Your task to perform on an android device: Open the map Image 0: 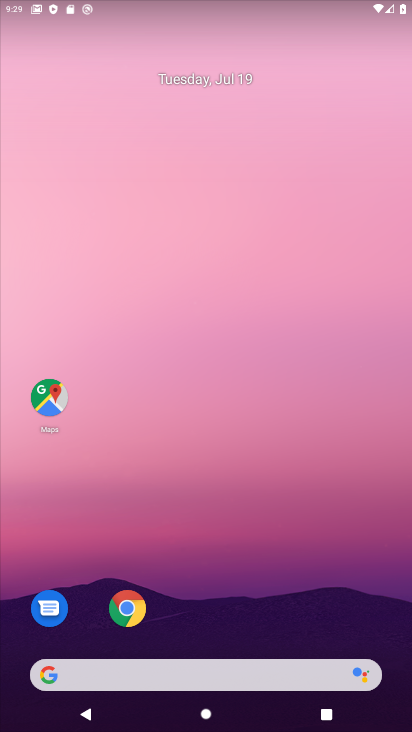
Step 0: drag from (299, 612) to (281, 126)
Your task to perform on an android device: Open the map Image 1: 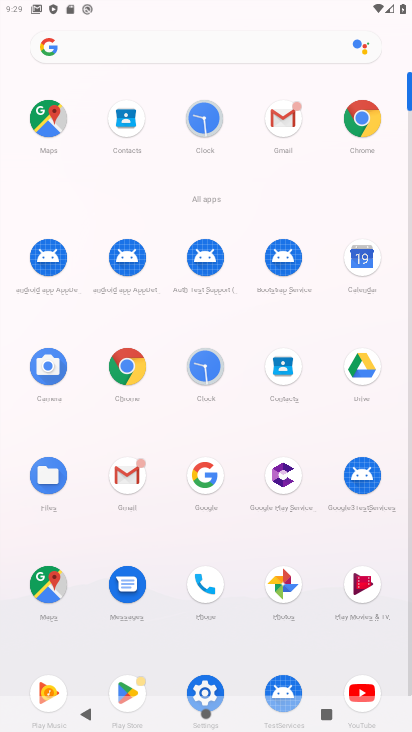
Step 1: click (48, 110)
Your task to perform on an android device: Open the map Image 2: 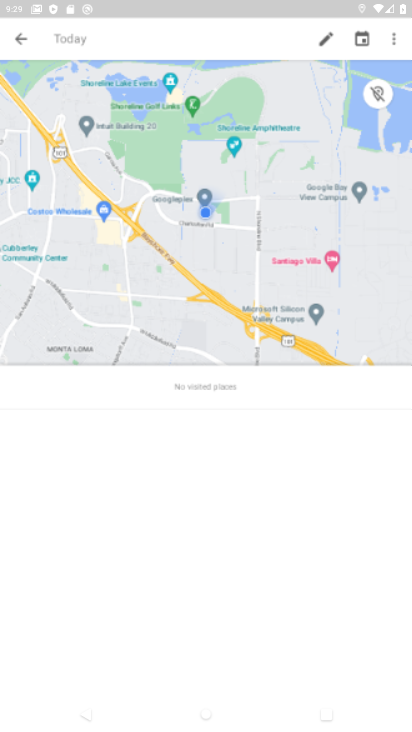
Step 2: task complete